Your task to perform on an android device: set an alarm Image 0: 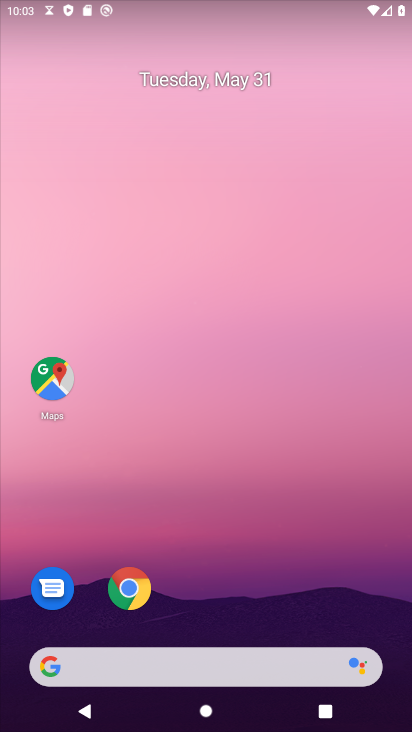
Step 0: drag from (189, 563) to (273, 191)
Your task to perform on an android device: set an alarm Image 1: 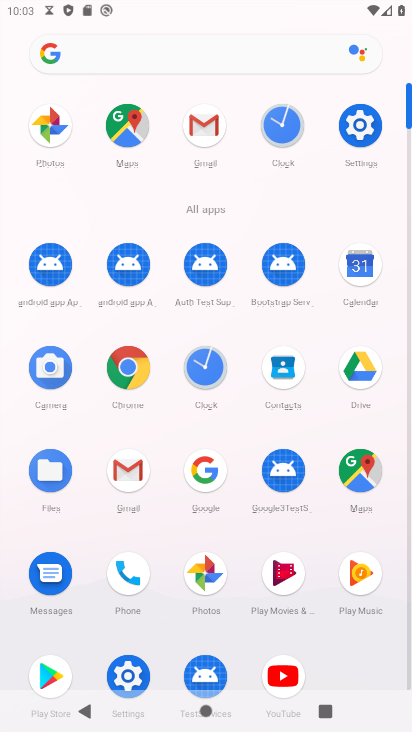
Step 1: click (284, 126)
Your task to perform on an android device: set an alarm Image 2: 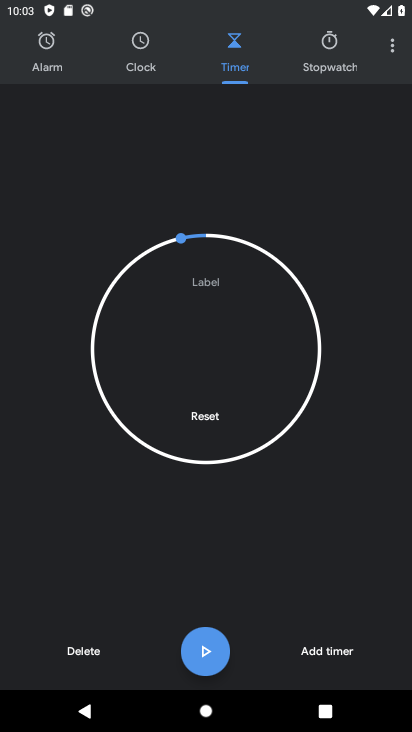
Step 2: click (47, 39)
Your task to perform on an android device: set an alarm Image 3: 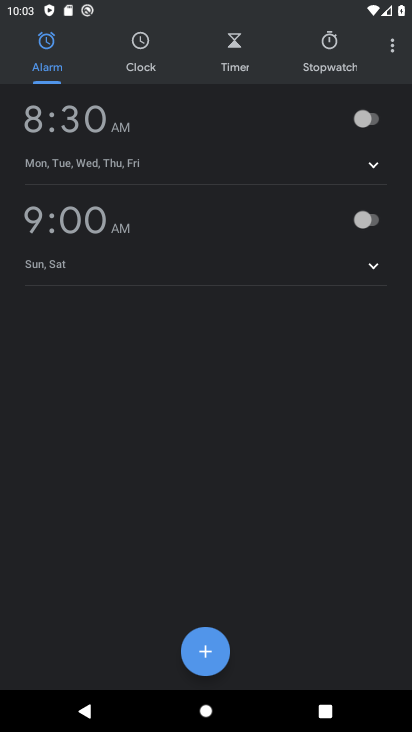
Step 3: click (204, 651)
Your task to perform on an android device: set an alarm Image 4: 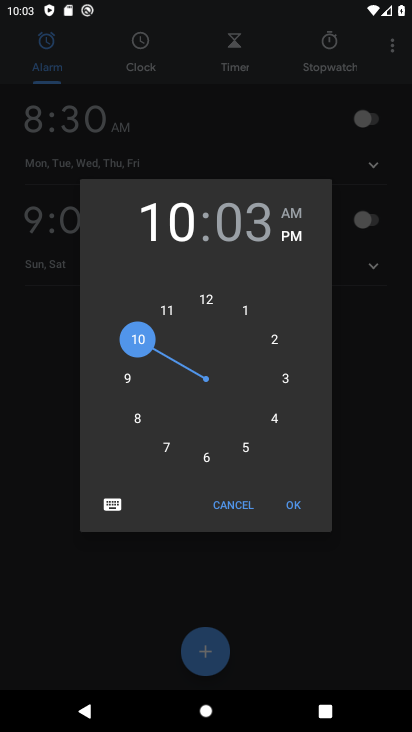
Step 4: click (206, 457)
Your task to perform on an android device: set an alarm Image 5: 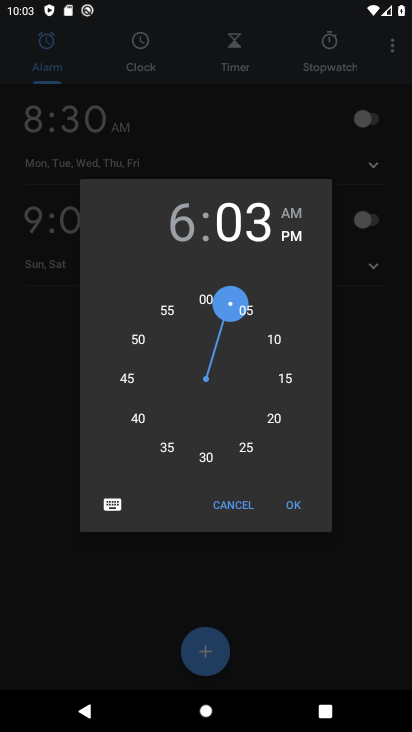
Step 5: click (138, 379)
Your task to perform on an android device: set an alarm Image 6: 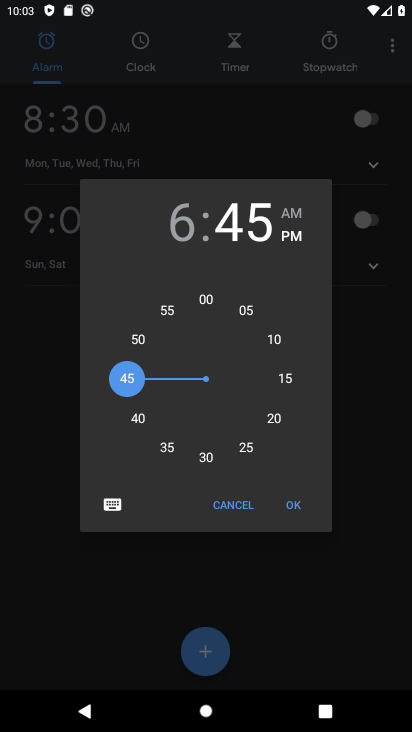
Step 6: click (296, 215)
Your task to perform on an android device: set an alarm Image 7: 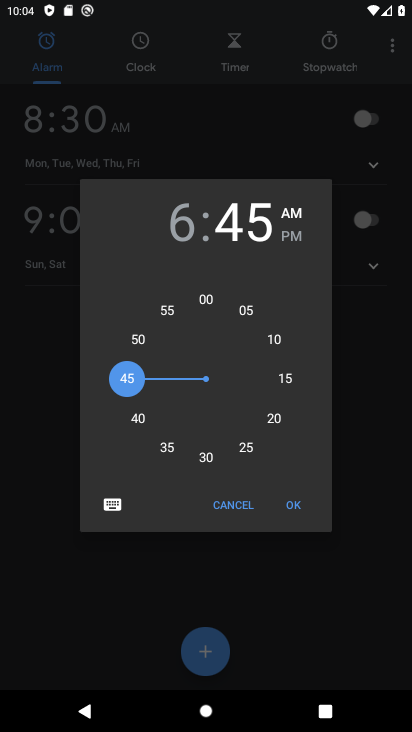
Step 7: click (292, 504)
Your task to perform on an android device: set an alarm Image 8: 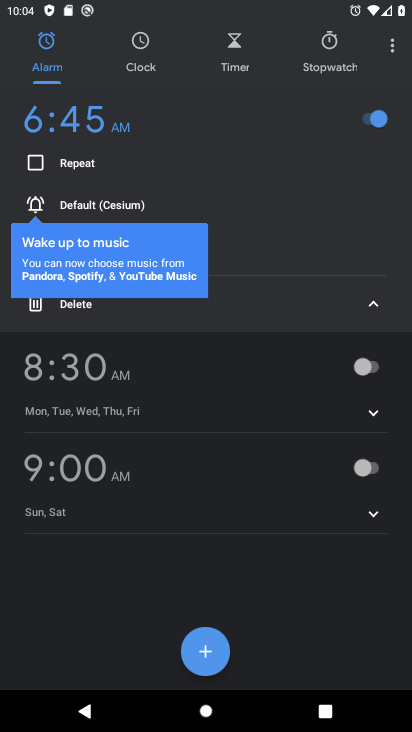
Step 8: click (371, 304)
Your task to perform on an android device: set an alarm Image 9: 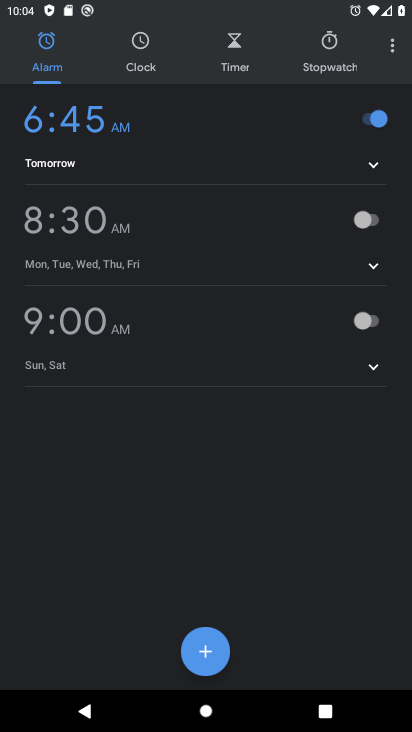
Step 9: task complete